Your task to perform on an android device: see tabs open on other devices in the chrome app Image 0: 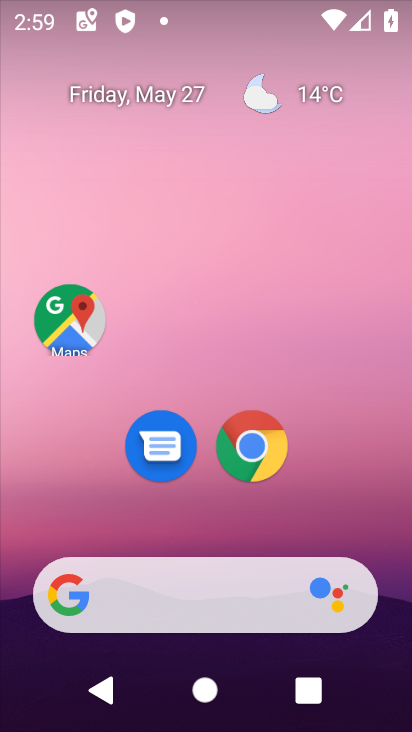
Step 0: press home button
Your task to perform on an android device: see tabs open on other devices in the chrome app Image 1: 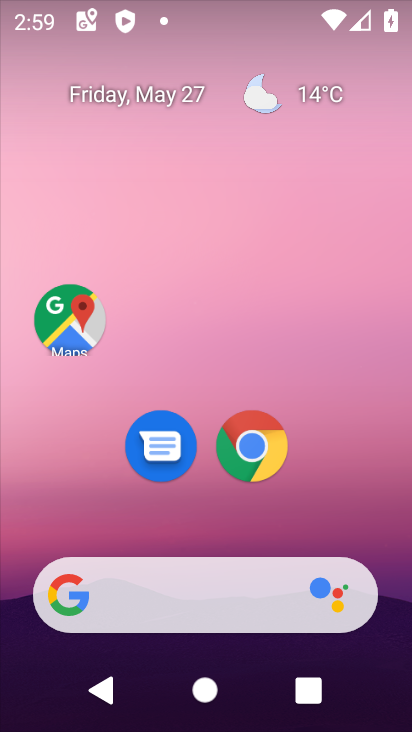
Step 1: click (255, 457)
Your task to perform on an android device: see tabs open on other devices in the chrome app Image 2: 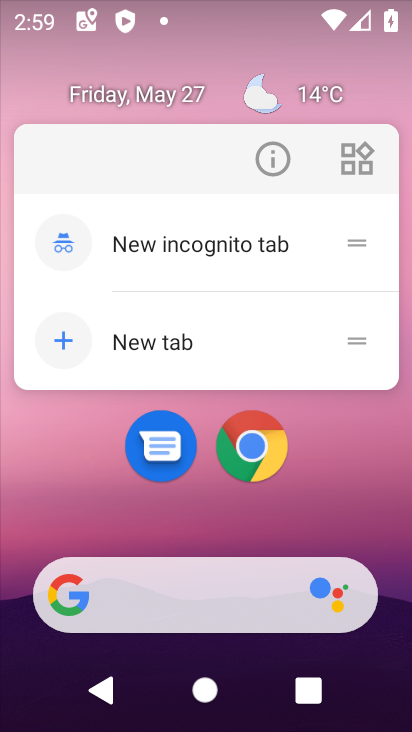
Step 2: click (256, 456)
Your task to perform on an android device: see tabs open on other devices in the chrome app Image 3: 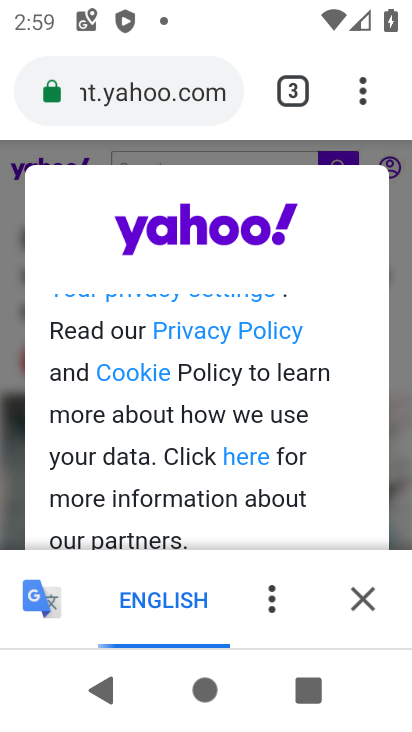
Step 3: task complete